Your task to perform on an android device: Go to settings Image 0: 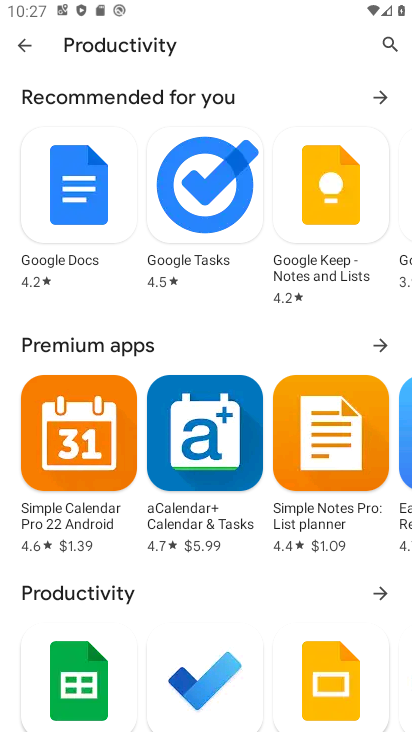
Step 0: press home button
Your task to perform on an android device: Go to settings Image 1: 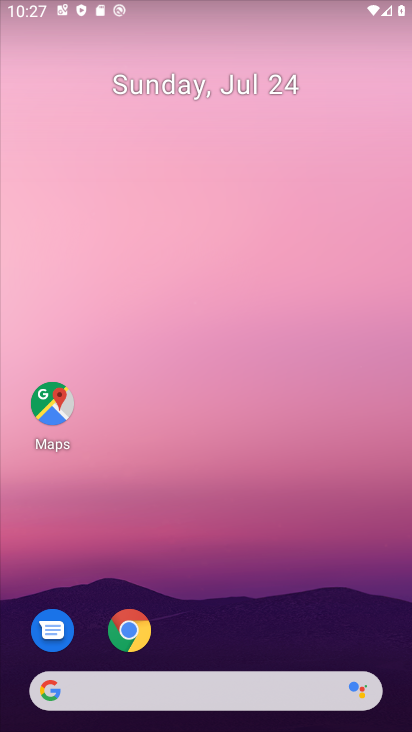
Step 1: drag from (221, 628) to (221, 135)
Your task to perform on an android device: Go to settings Image 2: 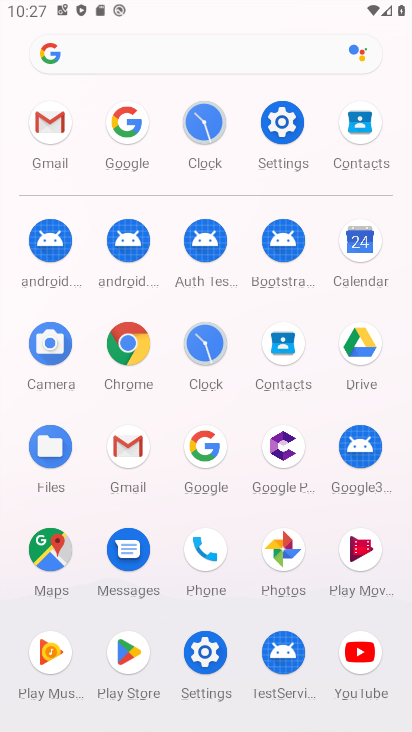
Step 2: click (264, 126)
Your task to perform on an android device: Go to settings Image 3: 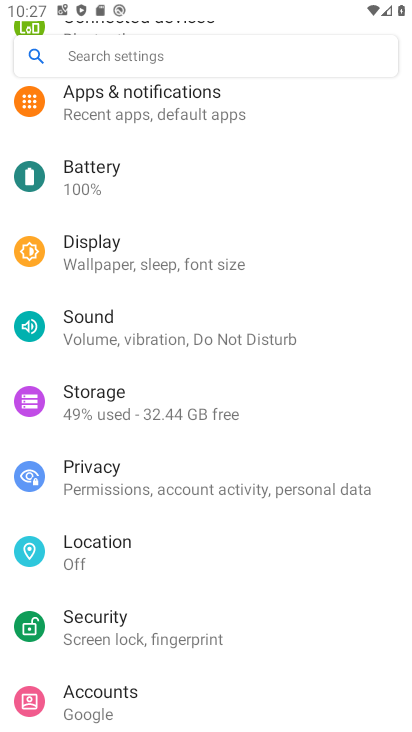
Step 3: task complete